Your task to perform on an android device: Go to Maps Image 0: 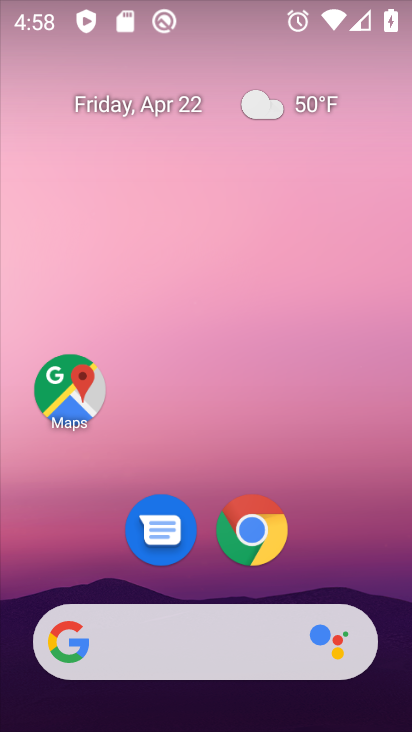
Step 0: drag from (325, 432) to (339, 103)
Your task to perform on an android device: Go to Maps Image 1: 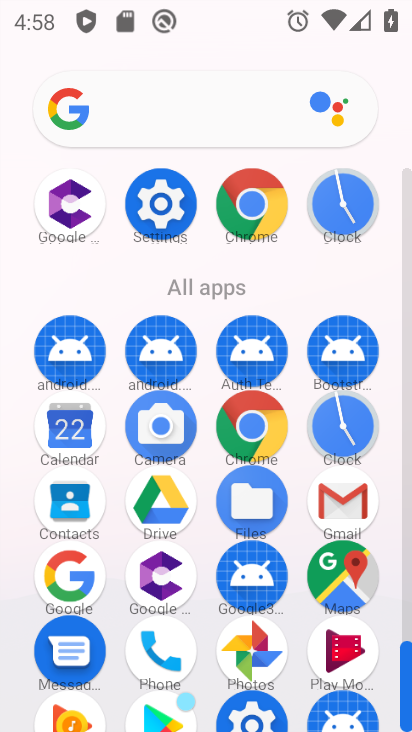
Step 1: drag from (284, 307) to (313, 85)
Your task to perform on an android device: Go to Maps Image 2: 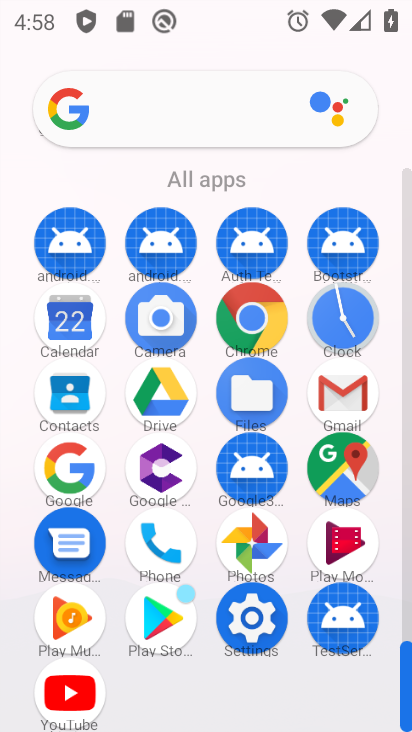
Step 2: click (331, 475)
Your task to perform on an android device: Go to Maps Image 3: 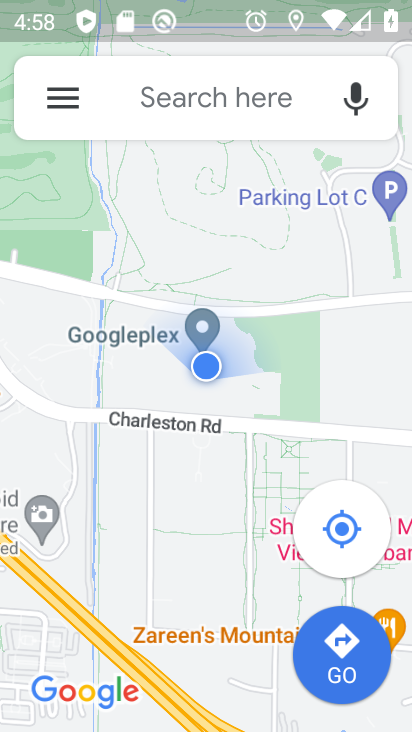
Step 3: click (220, 93)
Your task to perform on an android device: Go to Maps Image 4: 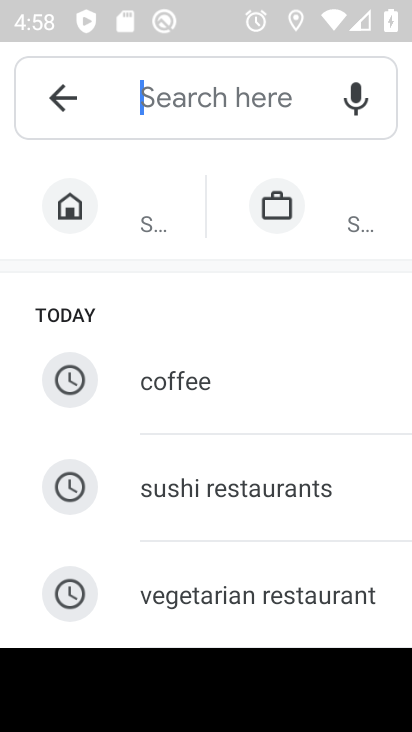
Step 4: task complete